Your task to perform on an android device: Go to battery settings Image 0: 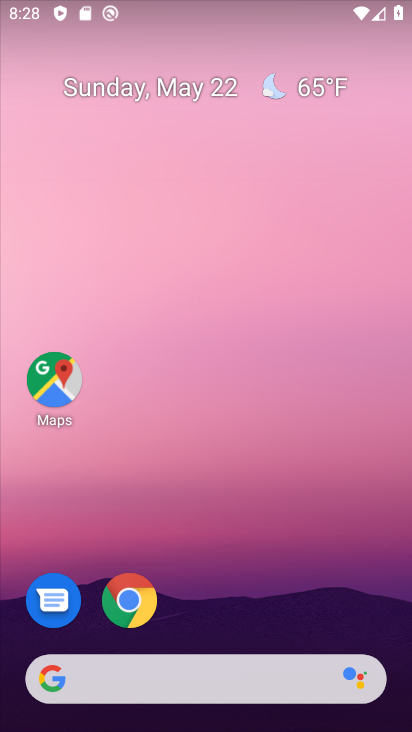
Step 0: drag from (229, 591) to (188, 189)
Your task to perform on an android device: Go to battery settings Image 1: 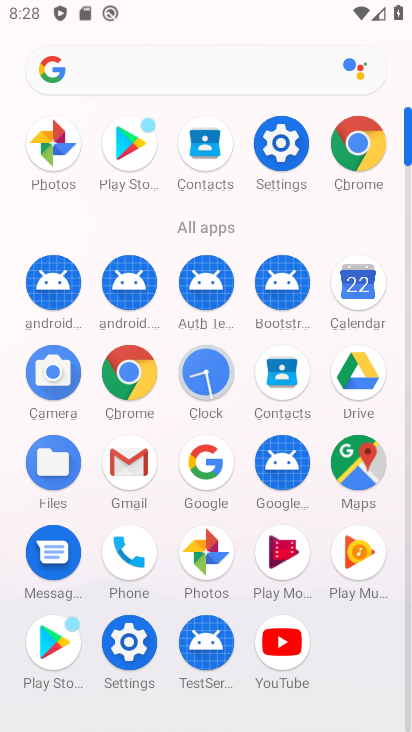
Step 1: click (277, 147)
Your task to perform on an android device: Go to battery settings Image 2: 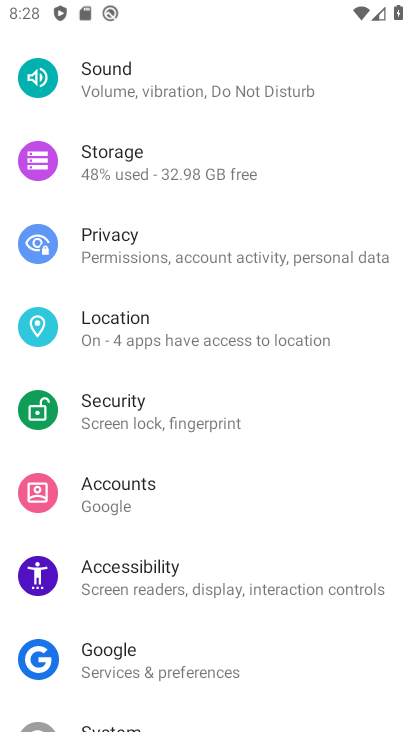
Step 2: task complete